Your task to perform on an android device: What's on my calendar tomorrow? Image 0: 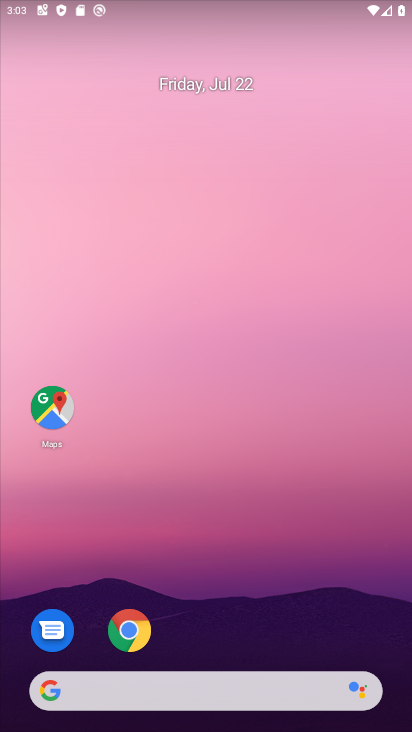
Step 0: drag from (402, 695) to (333, 125)
Your task to perform on an android device: What's on my calendar tomorrow? Image 1: 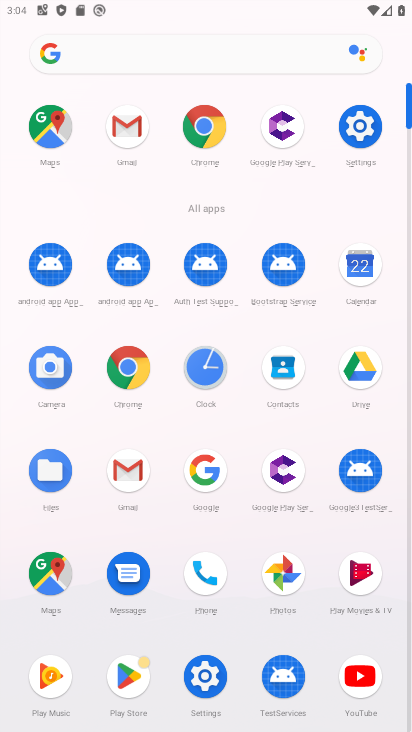
Step 1: click (359, 270)
Your task to perform on an android device: What's on my calendar tomorrow? Image 2: 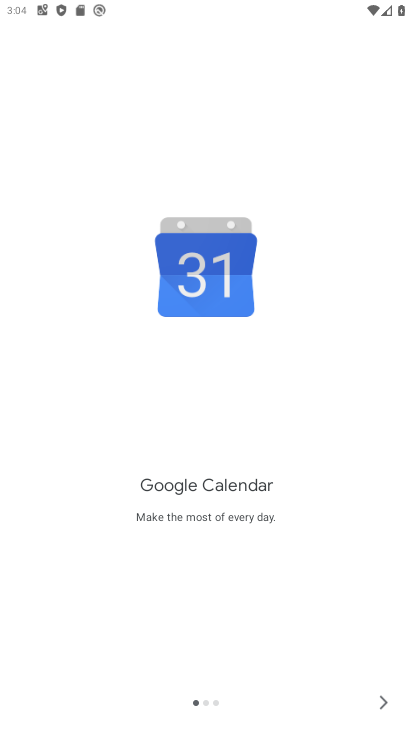
Step 2: click (379, 697)
Your task to perform on an android device: What's on my calendar tomorrow? Image 3: 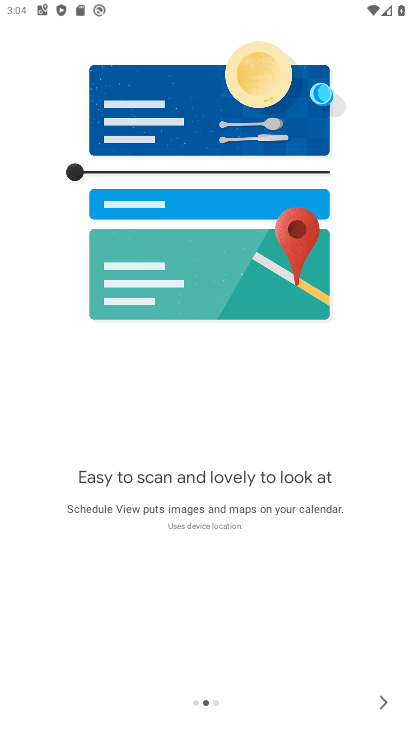
Step 3: click (379, 687)
Your task to perform on an android device: What's on my calendar tomorrow? Image 4: 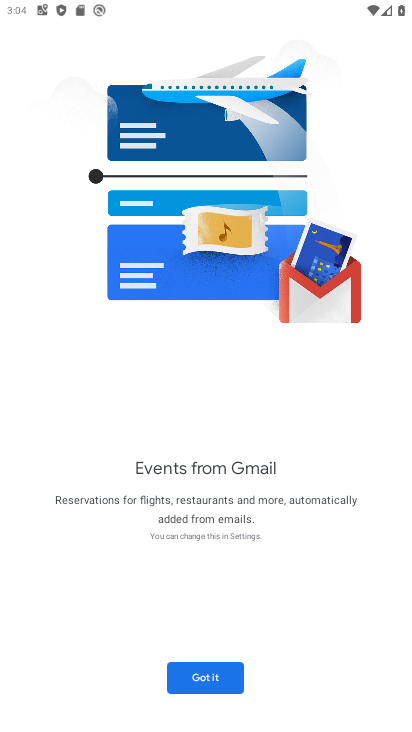
Step 4: click (179, 668)
Your task to perform on an android device: What's on my calendar tomorrow? Image 5: 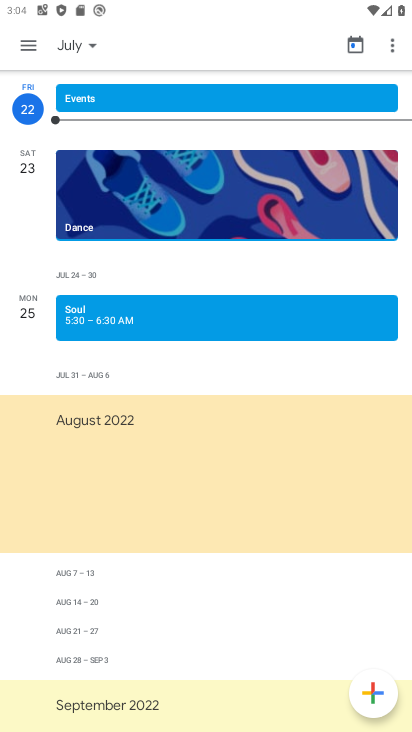
Step 5: click (87, 46)
Your task to perform on an android device: What's on my calendar tomorrow? Image 6: 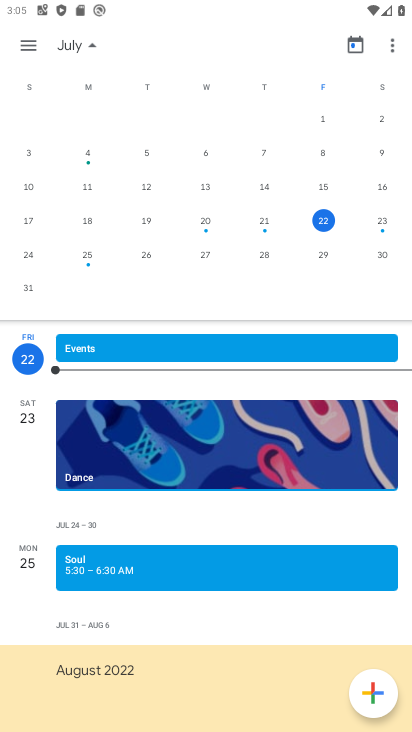
Step 6: click (382, 215)
Your task to perform on an android device: What's on my calendar tomorrow? Image 7: 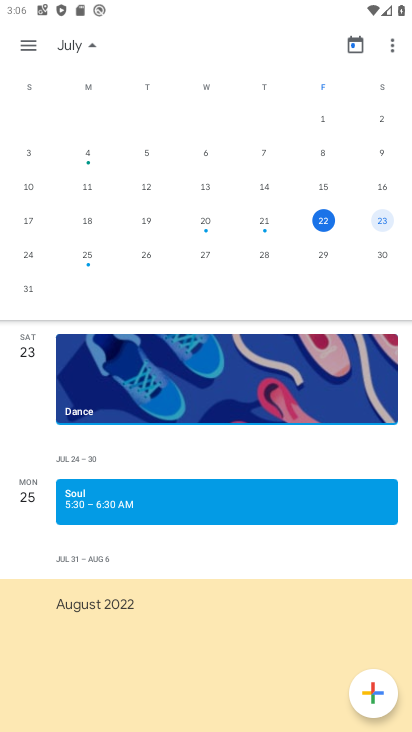
Step 7: task complete